Your task to perform on an android device: empty trash in google photos Image 0: 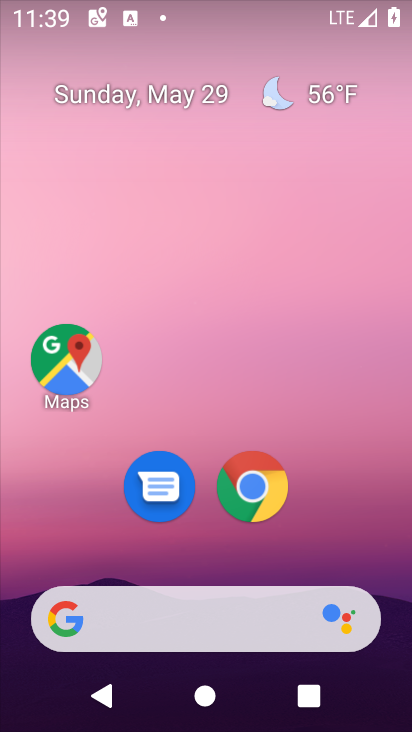
Step 0: drag from (228, 581) to (230, 17)
Your task to perform on an android device: empty trash in google photos Image 1: 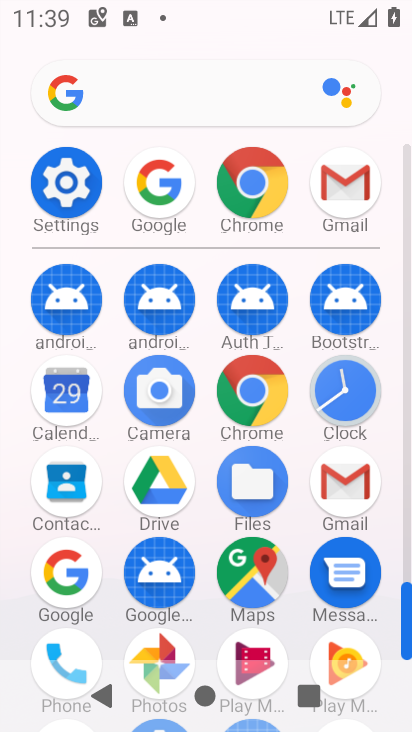
Step 1: drag from (230, 491) to (207, 262)
Your task to perform on an android device: empty trash in google photos Image 2: 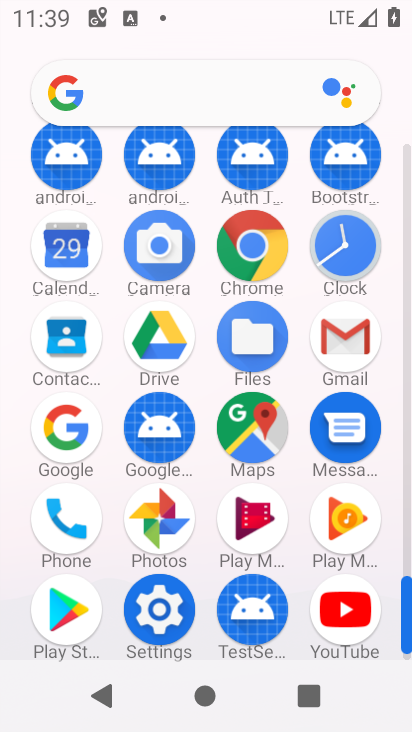
Step 2: drag from (215, 521) to (202, 385)
Your task to perform on an android device: empty trash in google photos Image 3: 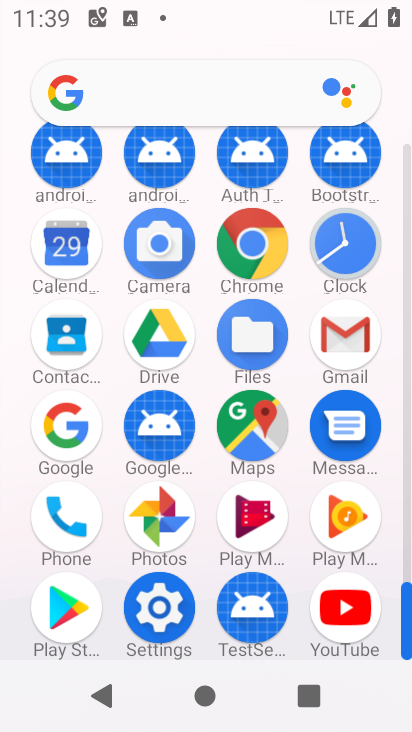
Step 3: click (158, 523)
Your task to perform on an android device: empty trash in google photos Image 4: 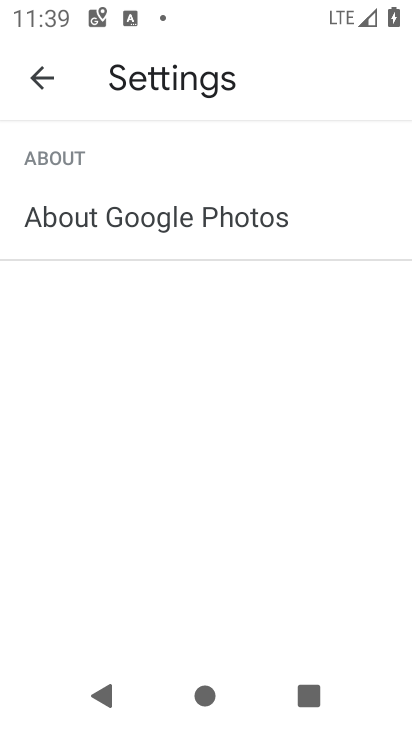
Step 4: click (44, 81)
Your task to perform on an android device: empty trash in google photos Image 5: 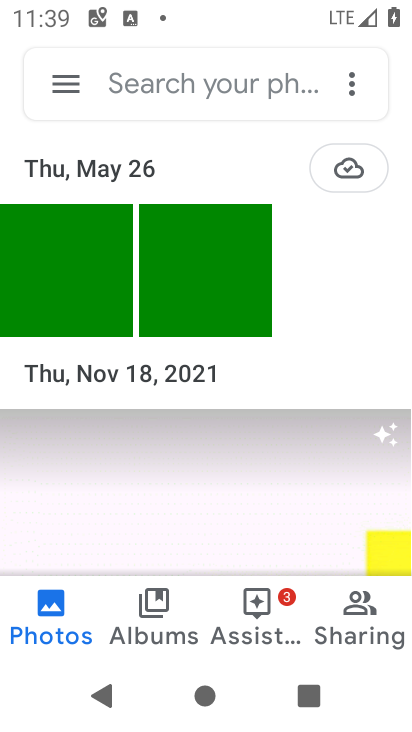
Step 5: drag from (243, 315) to (196, 665)
Your task to perform on an android device: empty trash in google photos Image 6: 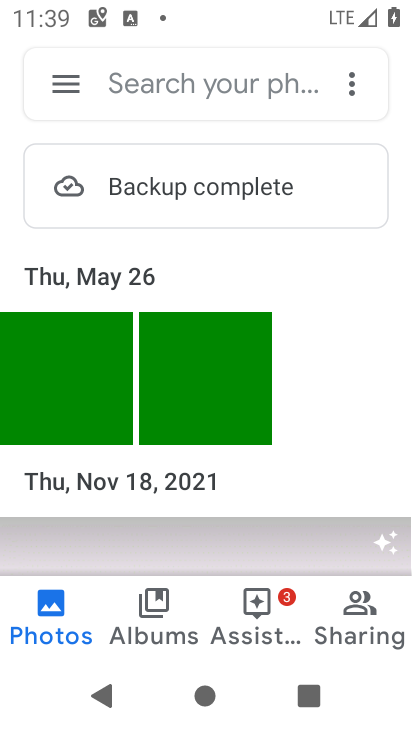
Step 6: click (68, 82)
Your task to perform on an android device: empty trash in google photos Image 7: 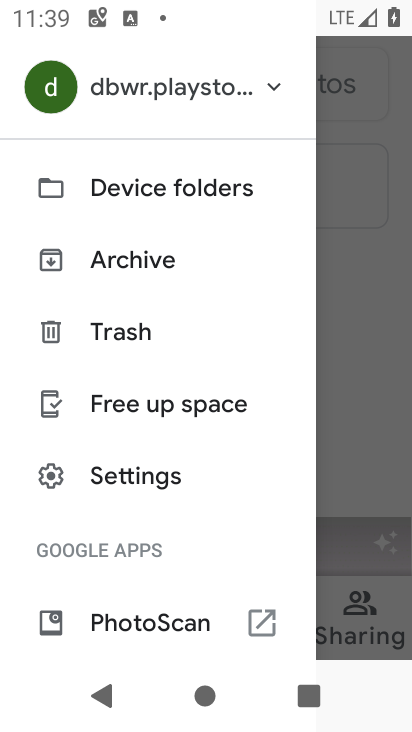
Step 7: click (114, 328)
Your task to perform on an android device: empty trash in google photos Image 8: 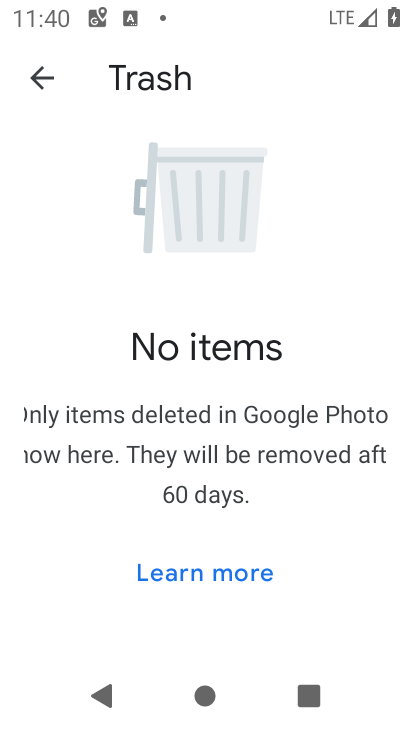
Step 8: task complete